Your task to perform on an android device: turn on improve location accuracy Image 0: 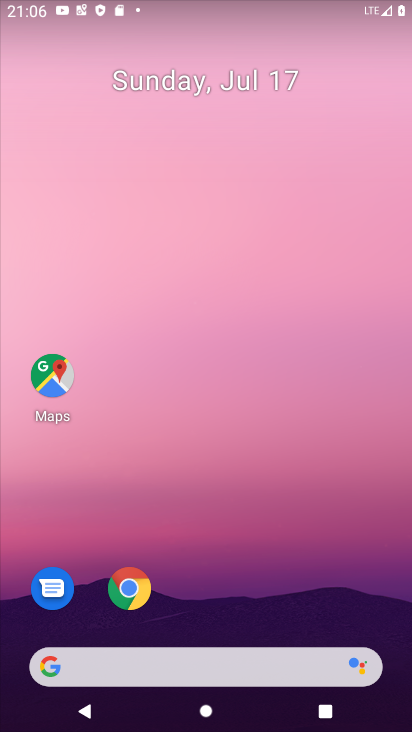
Step 0: drag from (207, 534) to (309, 39)
Your task to perform on an android device: turn on improve location accuracy Image 1: 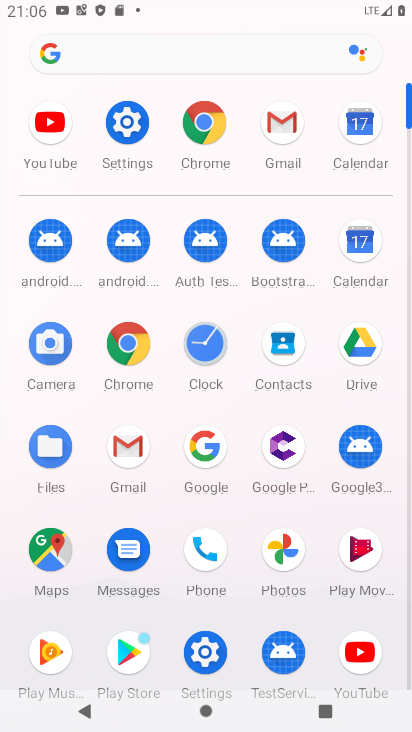
Step 1: click (195, 653)
Your task to perform on an android device: turn on improve location accuracy Image 2: 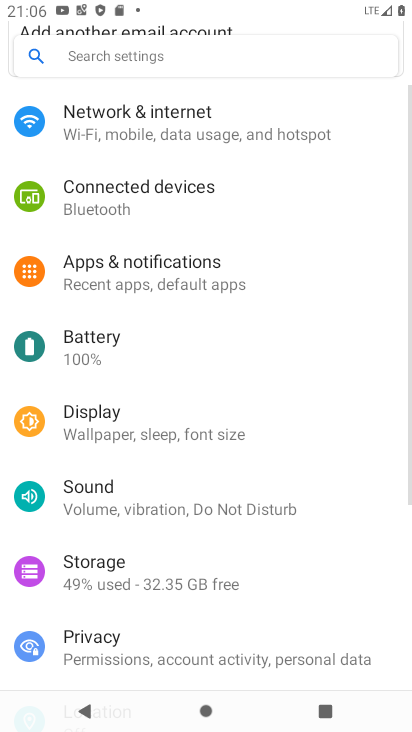
Step 2: drag from (154, 653) to (158, 351)
Your task to perform on an android device: turn on improve location accuracy Image 3: 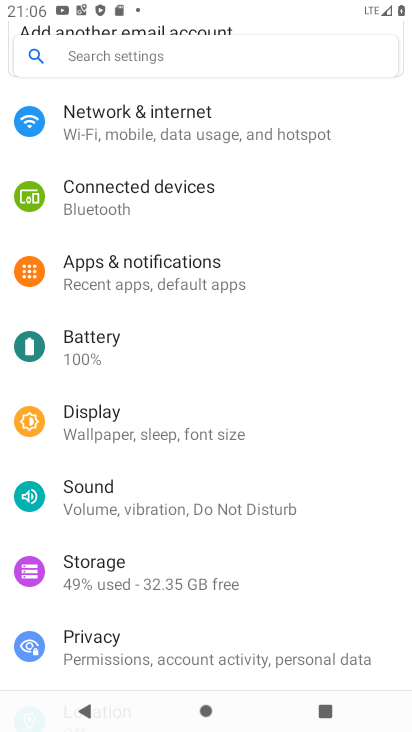
Step 3: drag from (138, 510) to (132, 170)
Your task to perform on an android device: turn on improve location accuracy Image 4: 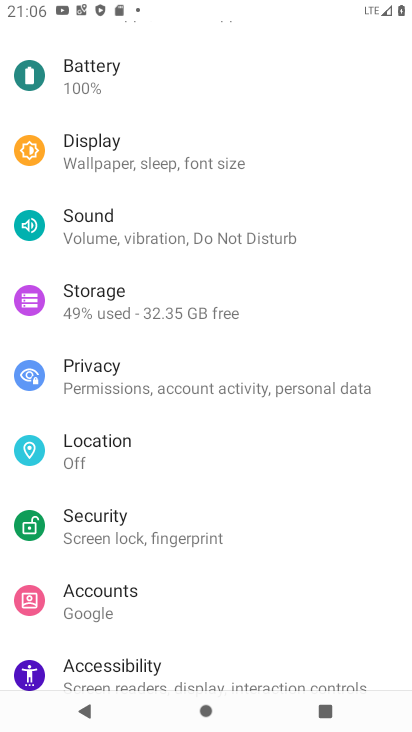
Step 4: click (92, 437)
Your task to perform on an android device: turn on improve location accuracy Image 5: 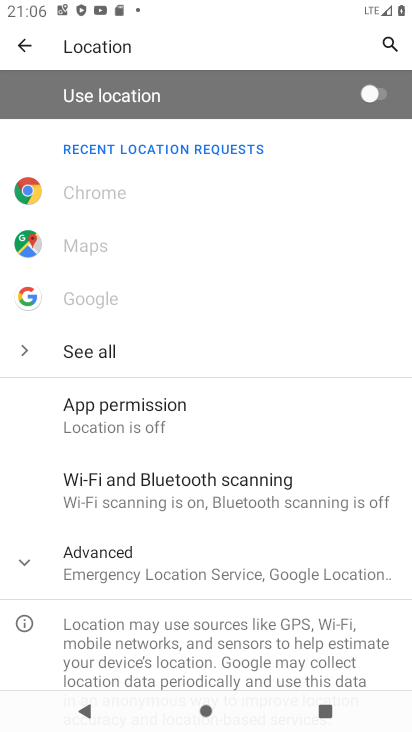
Step 5: click (97, 566)
Your task to perform on an android device: turn on improve location accuracy Image 6: 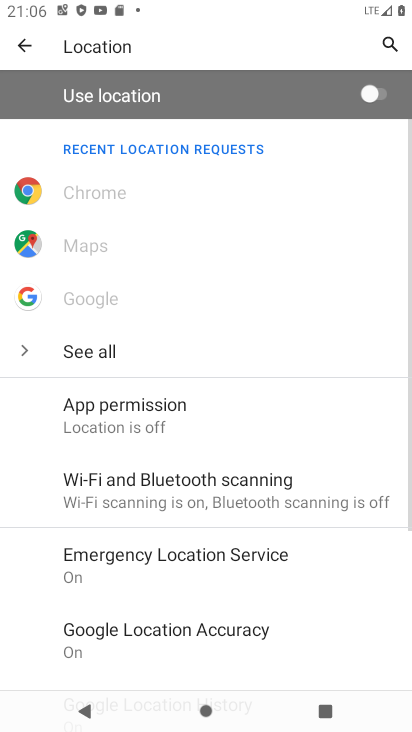
Step 6: click (103, 648)
Your task to perform on an android device: turn on improve location accuracy Image 7: 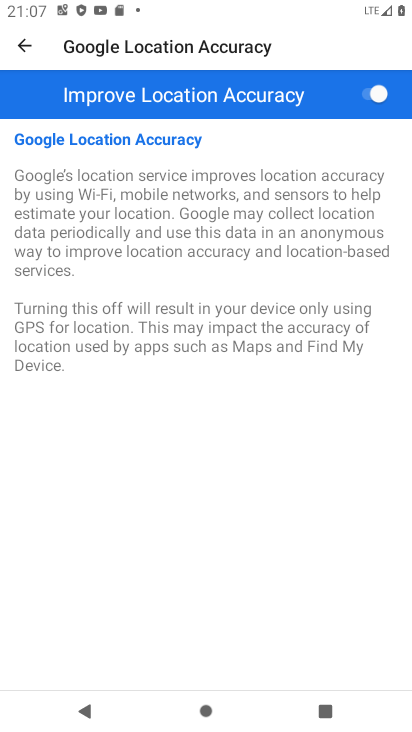
Step 7: task complete